Your task to perform on an android device: remove spam from my inbox in the gmail app Image 0: 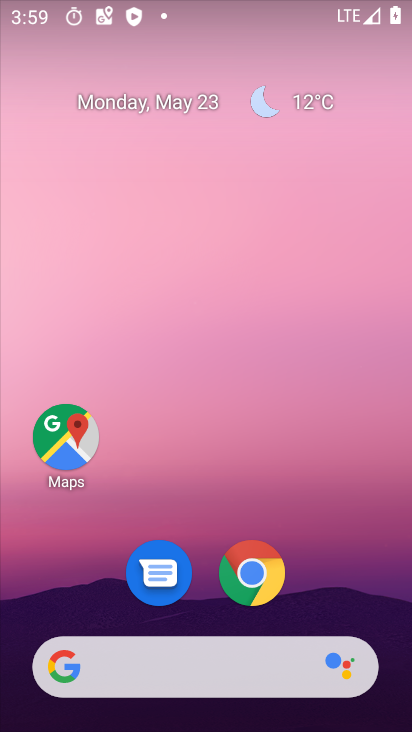
Step 0: press back button
Your task to perform on an android device: remove spam from my inbox in the gmail app Image 1: 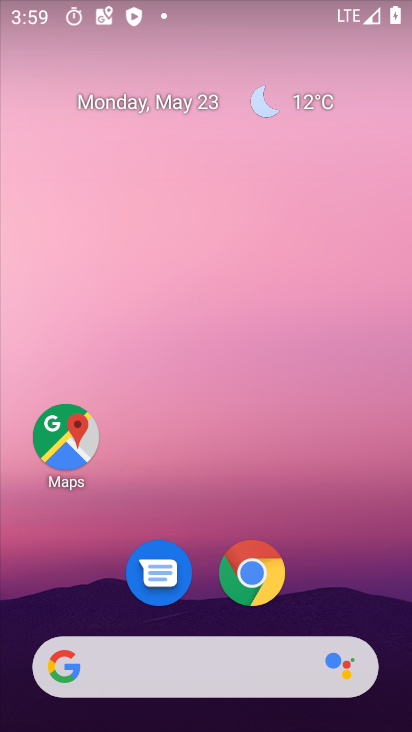
Step 1: press home button
Your task to perform on an android device: remove spam from my inbox in the gmail app Image 2: 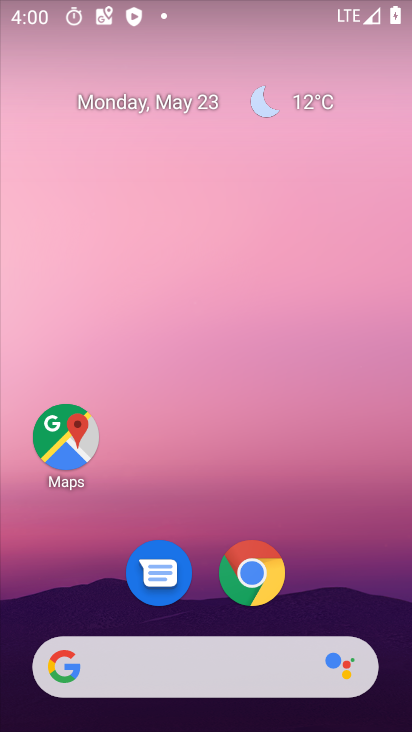
Step 2: drag from (80, 492) to (239, 205)
Your task to perform on an android device: remove spam from my inbox in the gmail app Image 3: 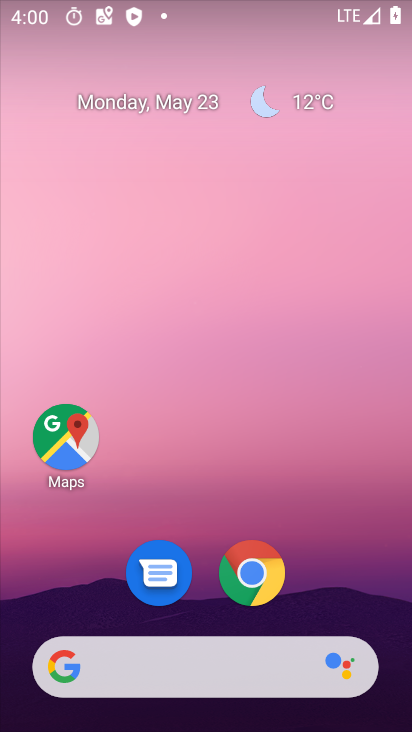
Step 3: drag from (56, 536) to (251, 165)
Your task to perform on an android device: remove spam from my inbox in the gmail app Image 4: 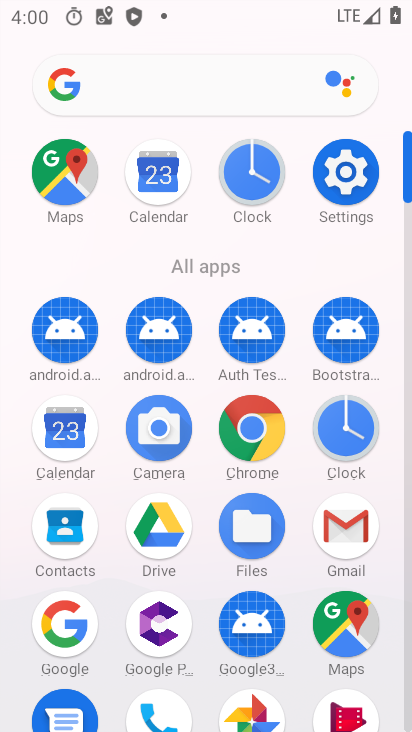
Step 4: click (341, 524)
Your task to perform on an android device: remove spam from my inbox in the gmail app Image 5: 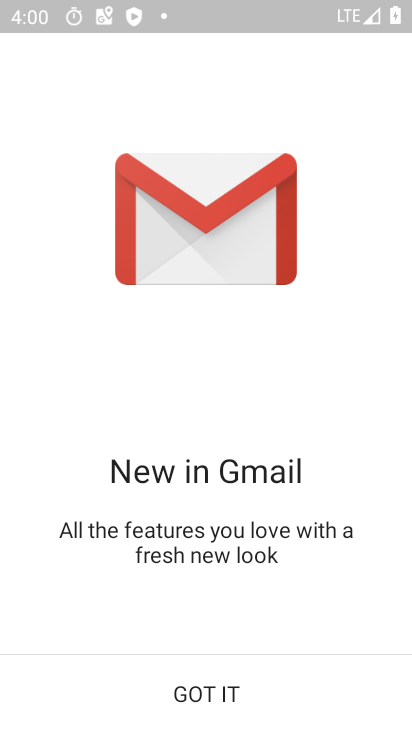
Step 5: click (238, 693)
Your task to perform on an android device: remove spam from my inbox in the gmail app Image 6: 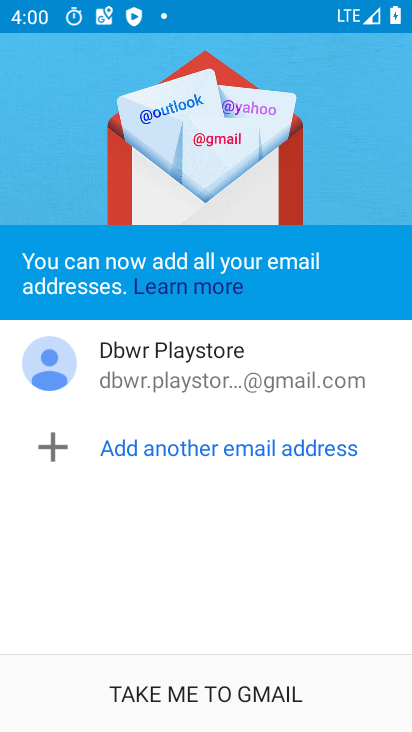
Step 6: click (238, 693)
Your task to perform on an android device: remove spam from my inbox in the gmail app Image 7: 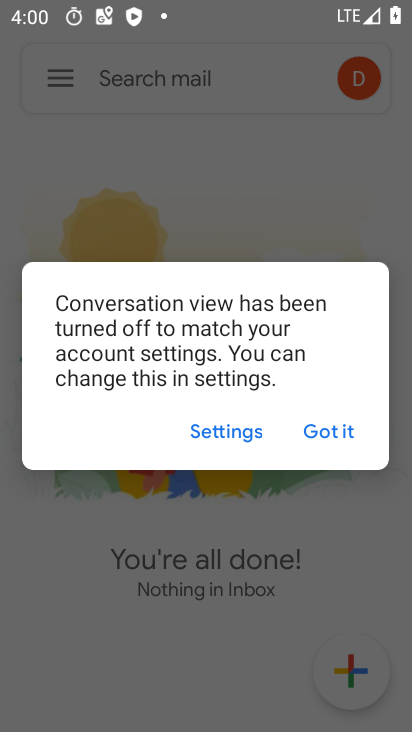
Step 7: click (314, 446)
Your task to perform on an android device: remove spam from my inbox in the gmail app Image 8: 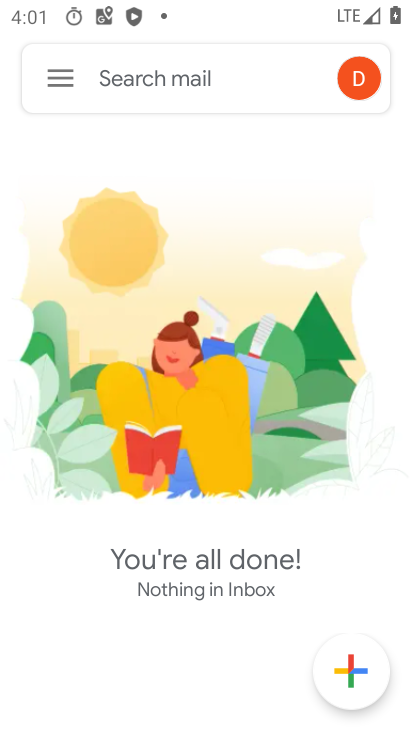
Step 8: click (46, 79)
Your task to perform on an android device: remove spam from my inbox in the gmail app Image 9: 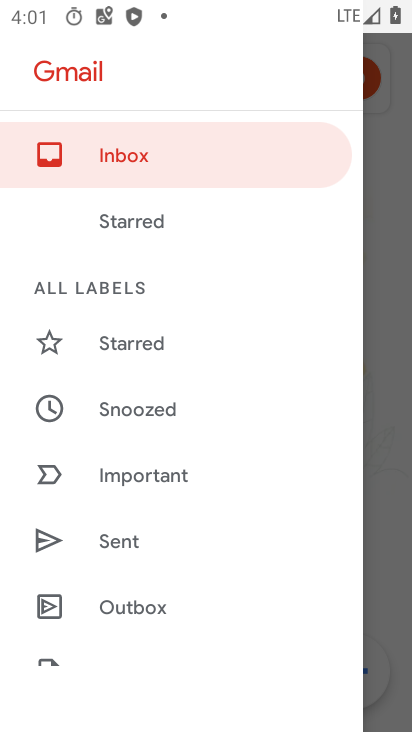
Step 9: drag from (1, 626) to (167, 229)
Your task to perform on an android device: remove spam from my inbox in the gmail app Image 10: 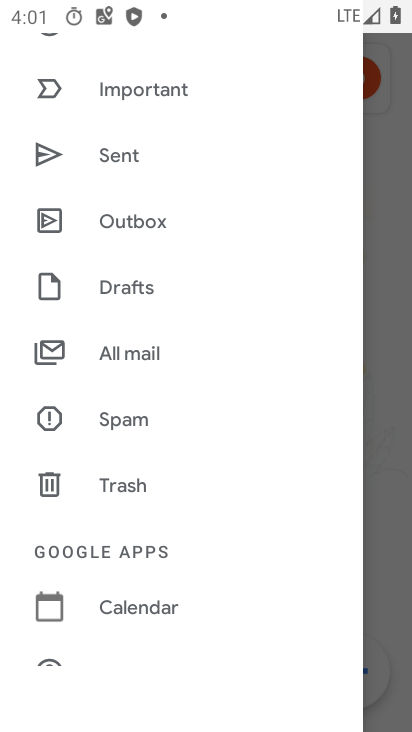
Step 10: click (158, 426)
Your task to perform on an android device: remove spam from my inbox in the gmail app Image 11: 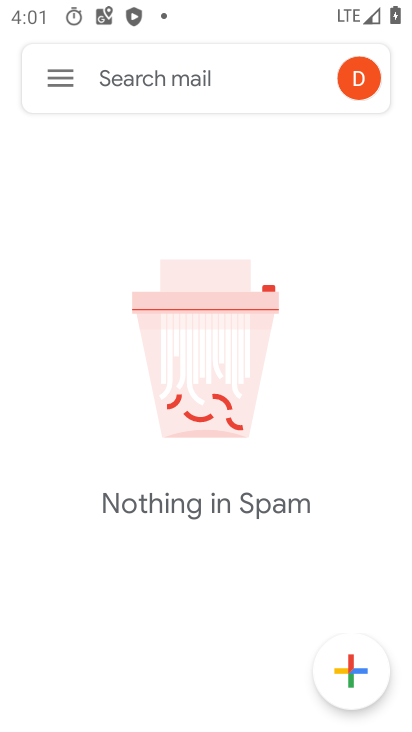
Step 11: task complete